Your task to perform on an android device: Show me popular games on the Play Store Image 0: 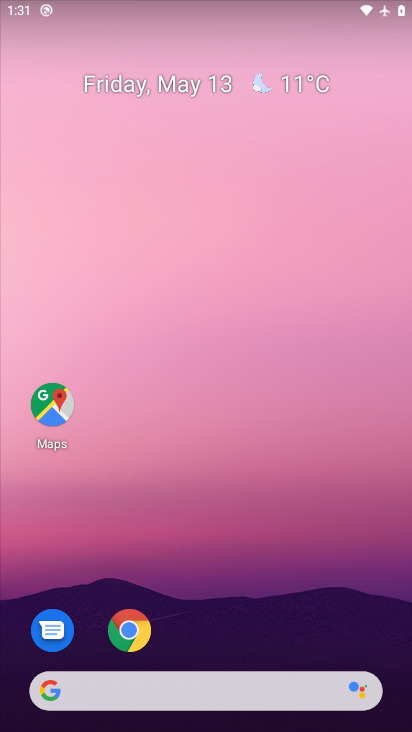
Step 0: drag from (243, 630) to (257, 146)
Your task to perform on an android device: Show me popular games on the Play Store Image 1: 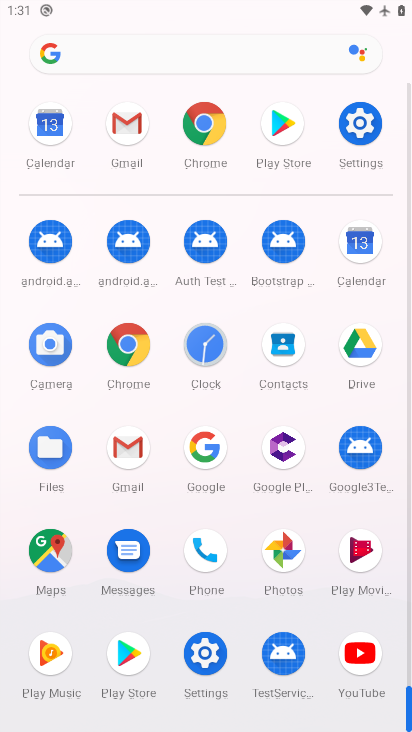
Step 1: click (130, 658)
Your task to perform on an android device: Show me popular games on the Play Store Image 2: 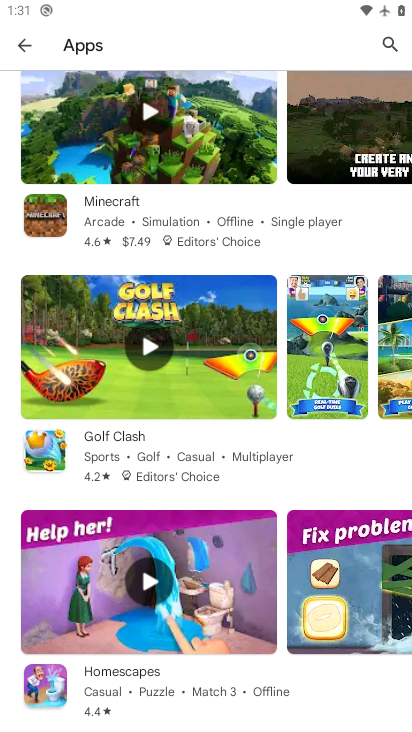
Step 2: task complete